Your task to perform on an android device: allow notifications from all sites in the chrome app Image 0: 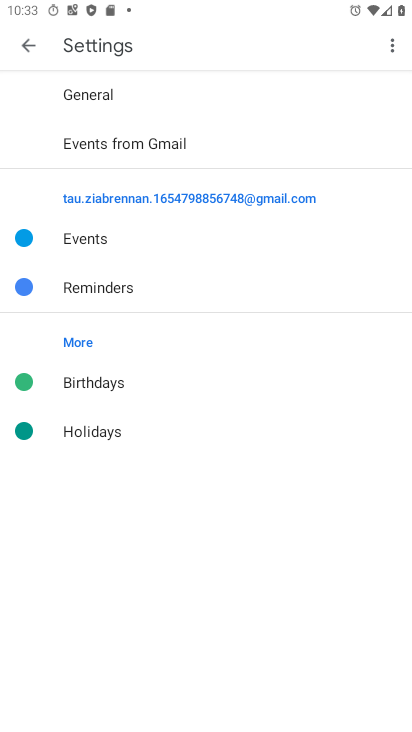
Step 0: press home button
Your task to perform on an android device: allow notifications from all sites in the chrome app Image 1: 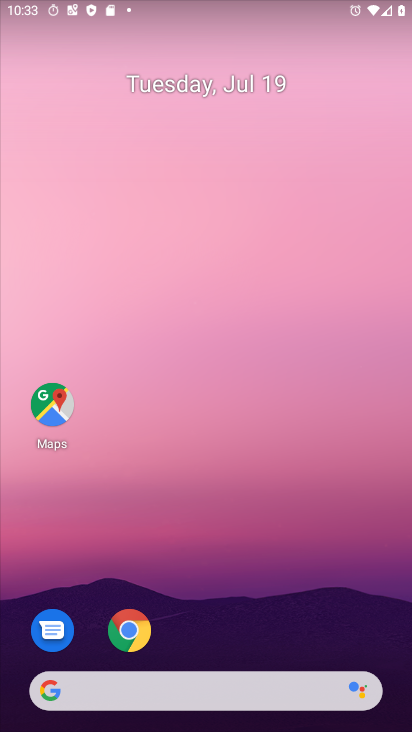
Step 1: click (124, 623)
Your task to perform on an android device: allow notifications from all sites in the chrome app Image 2: 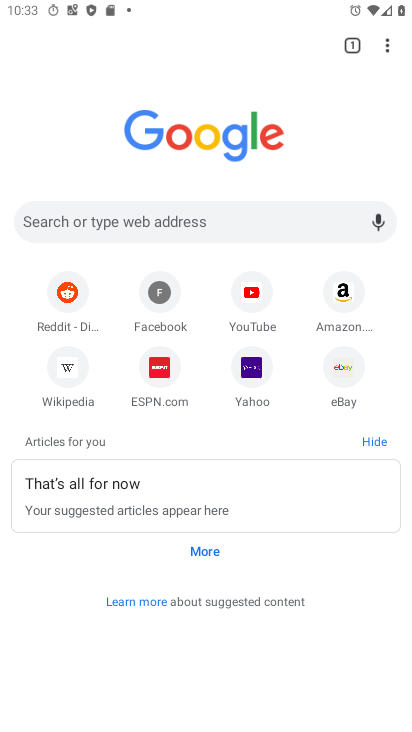
Step 2: task complete